Your task to perform on an android device: turn off javascript in the chrome app Image 0: 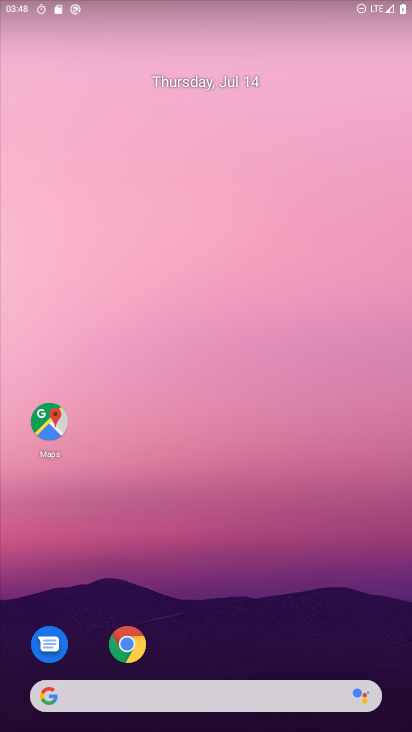
Step 0: drag from (334, 608) to (319, 88)
Your task to perform on an android device: turn off javascript in the chrome app Image 1: 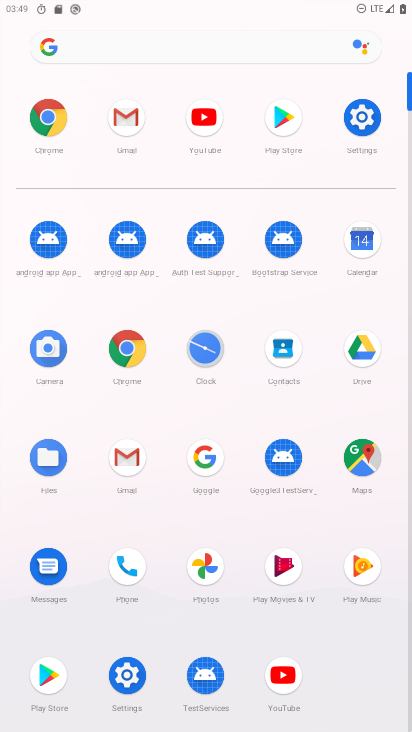
Step 1: click (46, 113)
Your task to perform on an android device: turn off javascript in the chrome app Image 2: 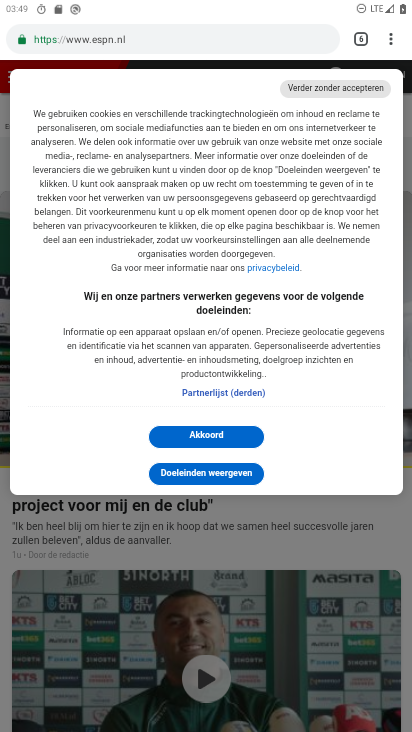
Step 2: drag from (398, 31) to (268, 475)
Your task to perform on an android device: turn off javascript in the chrome app Image 3: 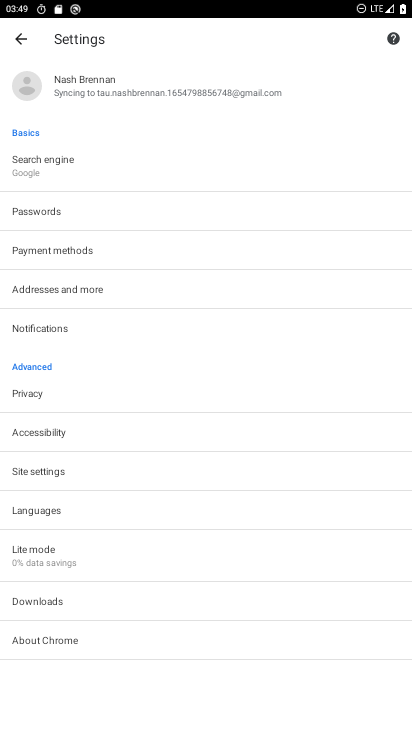
Step 3: click (72, 471)
Your task to perform on an android device: turn off javascript in the chrome app Image 4: 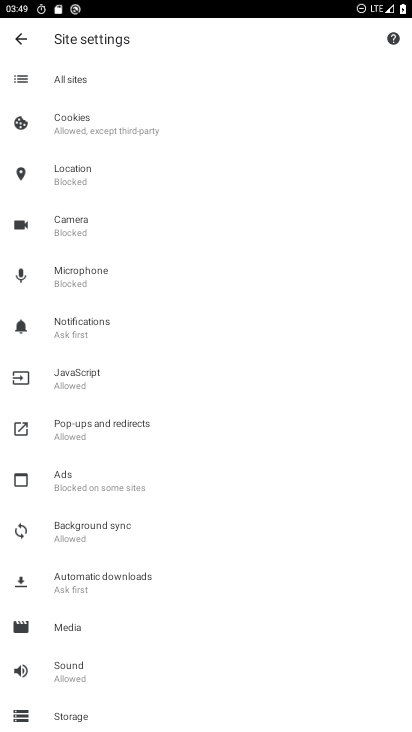
Step 4: click (107, 388)
Your task to perform on an android device: turn off javascript in the chrome app Image 5: 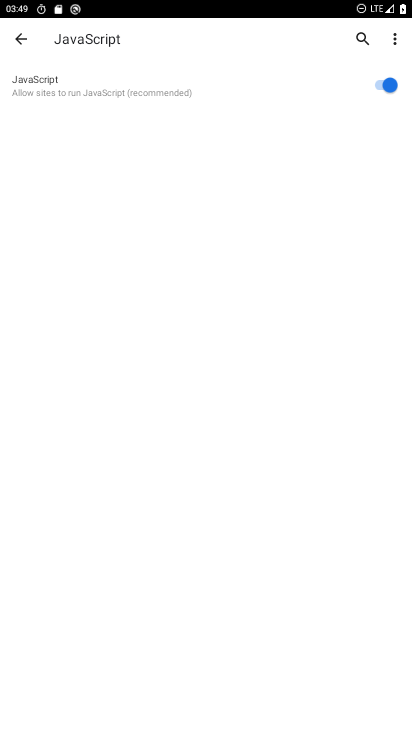
Step 5: click (379, 81)
Your task to perform on an android device: turn off javascript in the chrome app Image 6: 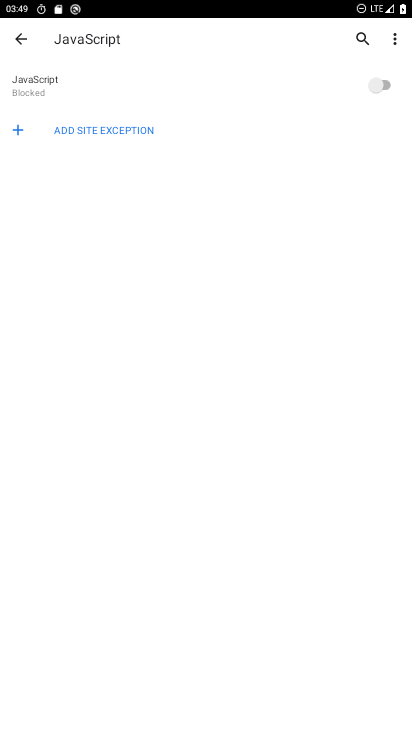
Step 6: task complete